Your task to perform on an android device: empty trash in google photos Image 0: 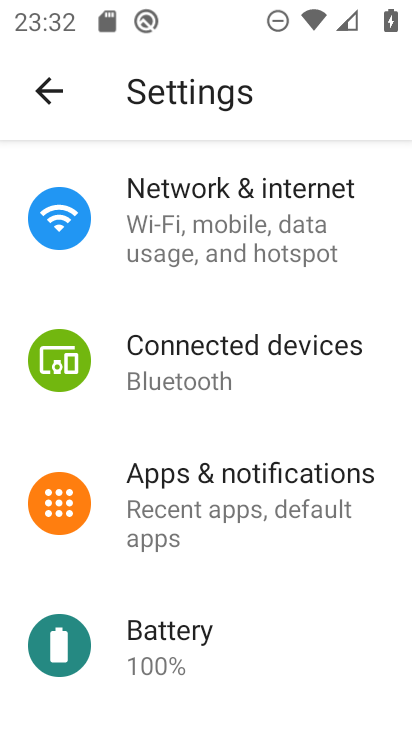
Step 0: press home button
Your task to perform on an android device: empty trash in google photos Image 1: 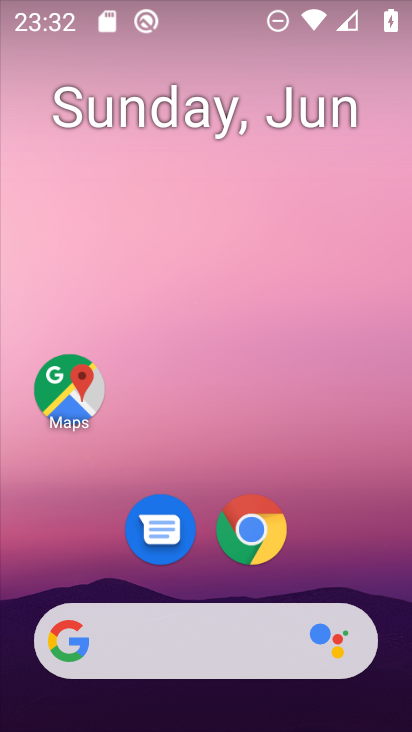
Step 1: drag from (395, 636) to (336, 57)
Your task to perform on an android device: empty trash in google photos Image 2: 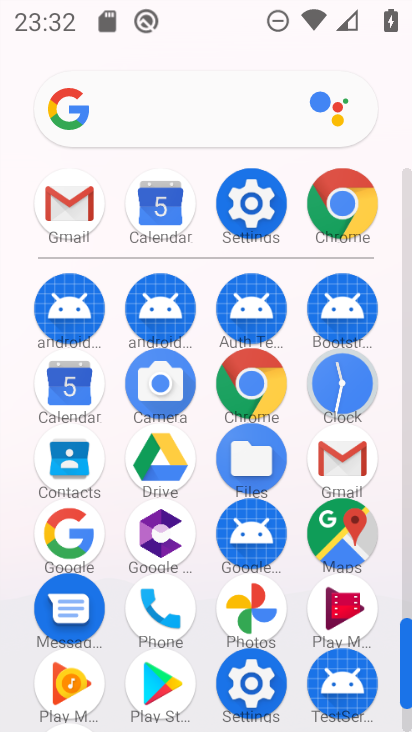
Step 2: click (249, 608)
Your task to perform on an android device: empty trash in google photos Image 3: 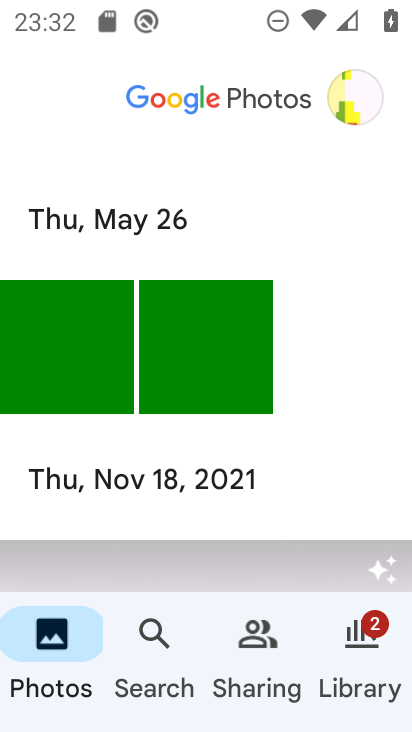
Step 3: click (360, 637)
Your task to perform on an android device: empty trash in google photos Image 4: 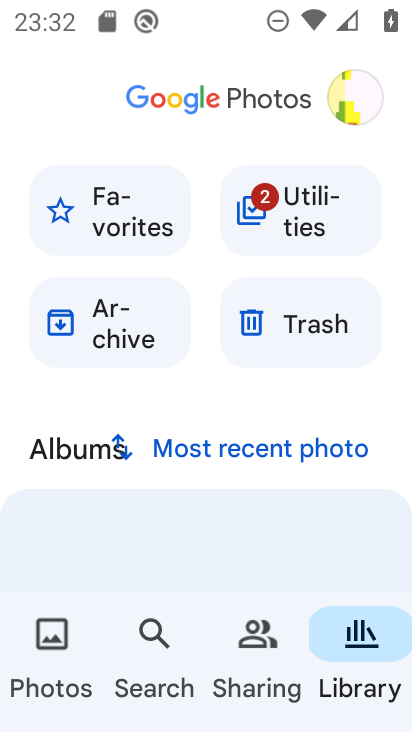
Step 4: click (307, 310)
Your task to perform on an android device: empty trash in google photos Image 5: 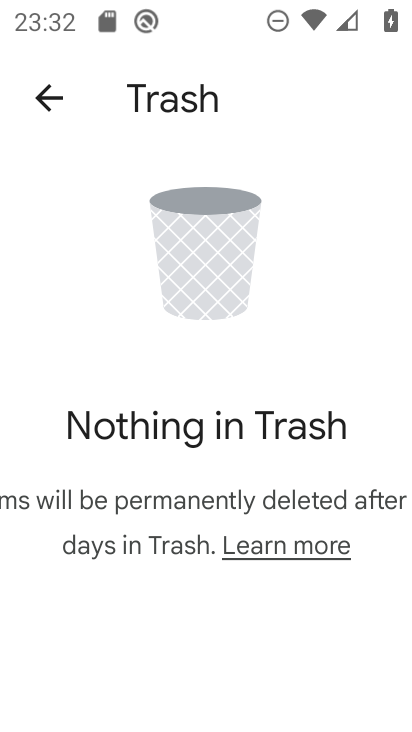
Step 5: task complete